Your task to perform on an android device: remove spam from my inbox in the gmail app Image 0: 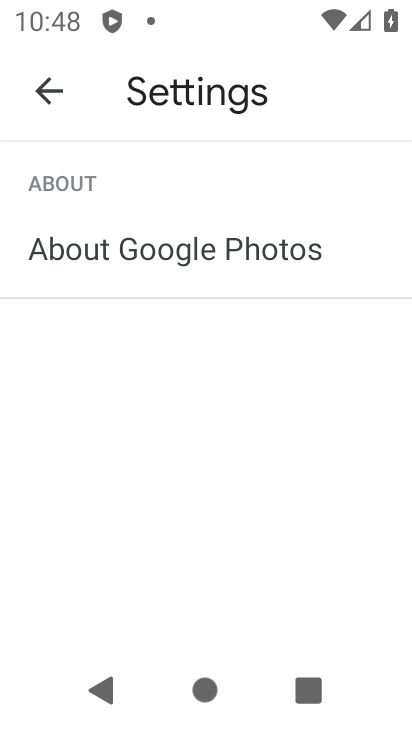
Step 0: press home button
Your task to perform on an android device: remove spam from my inbox in the gmail app Image 1: 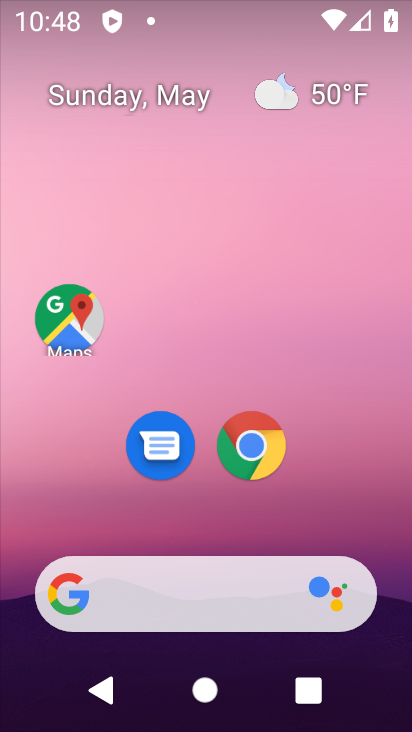
Step 1: drag from (253, 507) to (256, 83)
Your task to perform on an android device: remove spam from my inbox in the gmail app Image 2: 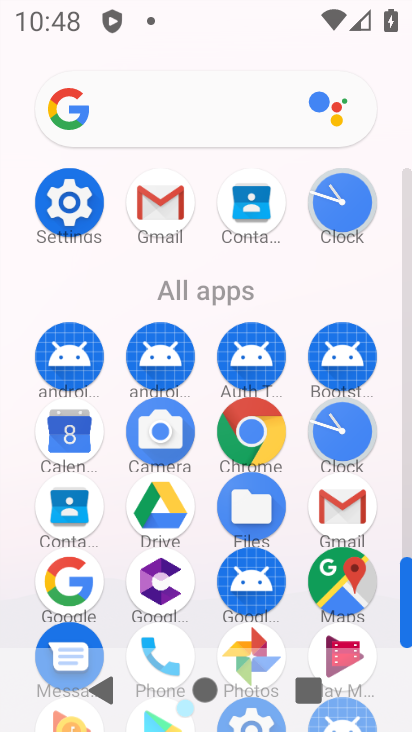
Step 2: click (346, 500)
Your task to perform on an android device: remove spam from my inbox in the gmail app Image 3: 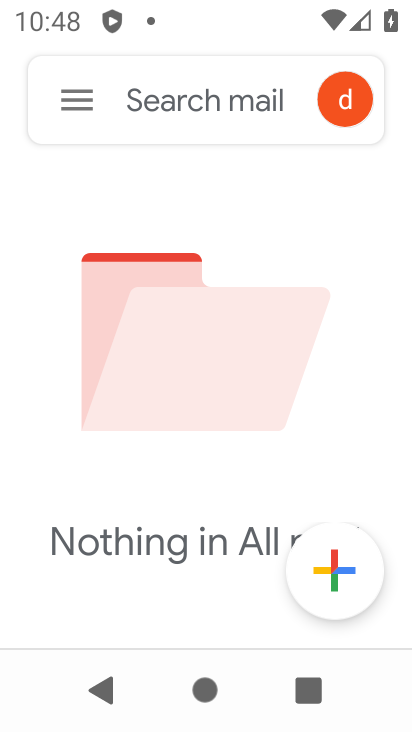
Step 3: click (73, 83)
Your task to perform on an android device: remove spam from my inbox in the gmail app Image 4: 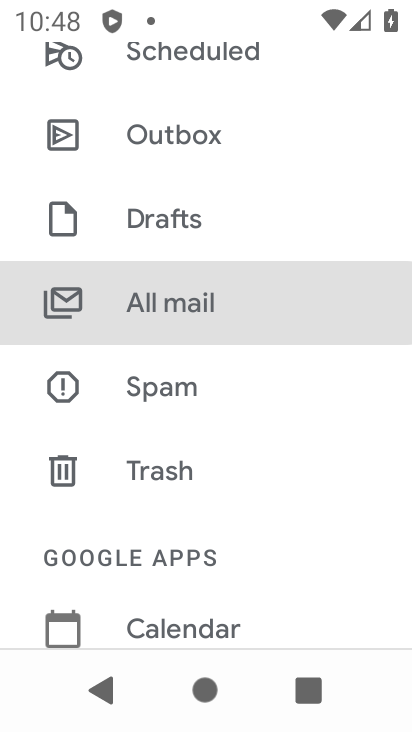
Step 4: click (153, 397)
Your task to perform on an android device: remove spam from my inbox in the gmail app Image 5: 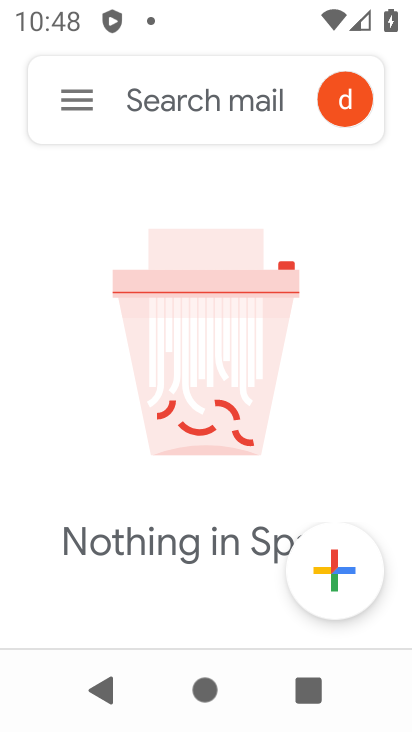
Step 5: task complete